Your task to perform on an android device: open app "Skype" (install if not already installed) and go to login screen Image 0: 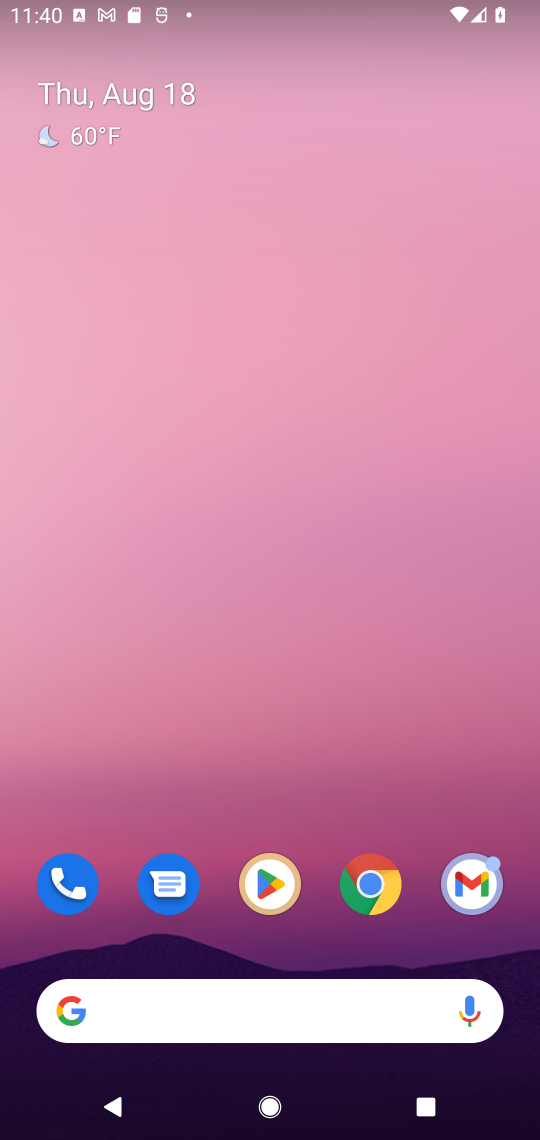
Step 0: drag from (248, 1011) to (267, 34)
Your task to perform on an android device: open app "Skype" (install if not already installed) and go to login screen Image 1: 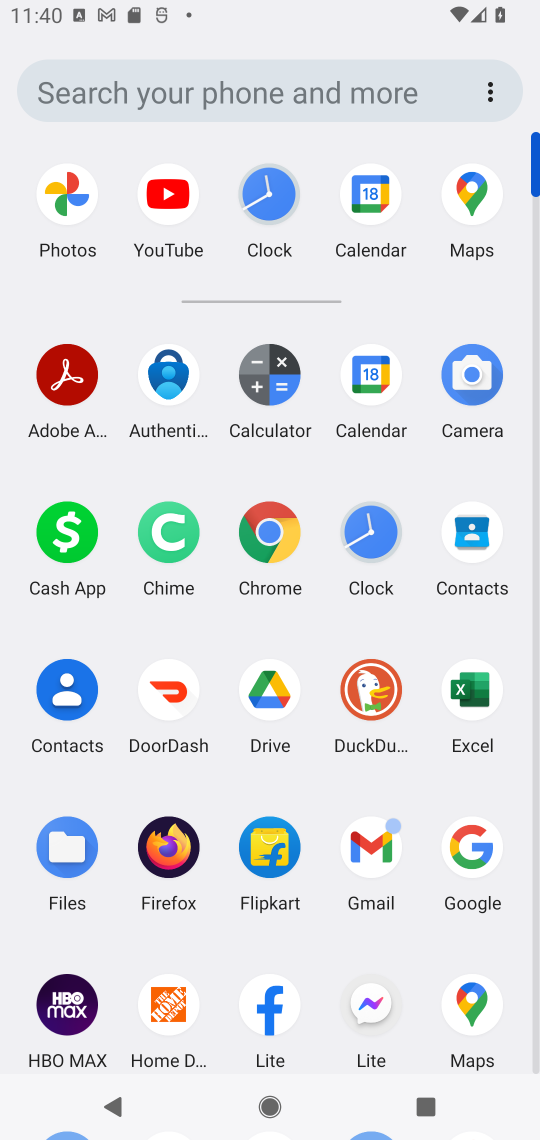
Step 1: drag from (332, 880) to (339, 362)
Your task to perform on an android device: open app "Skype" (install if not already installed) and go to login screen Image 2: 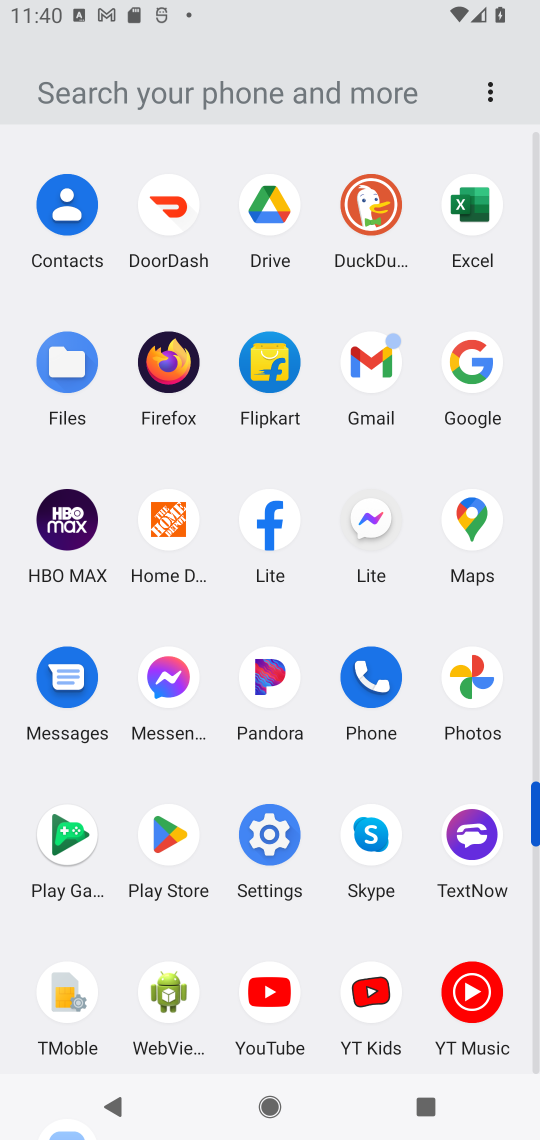
Step 2: click (170, 847)
Your task to perform on an android device: open app "Skype" (install if not already installed) and go to login screen Image 3: 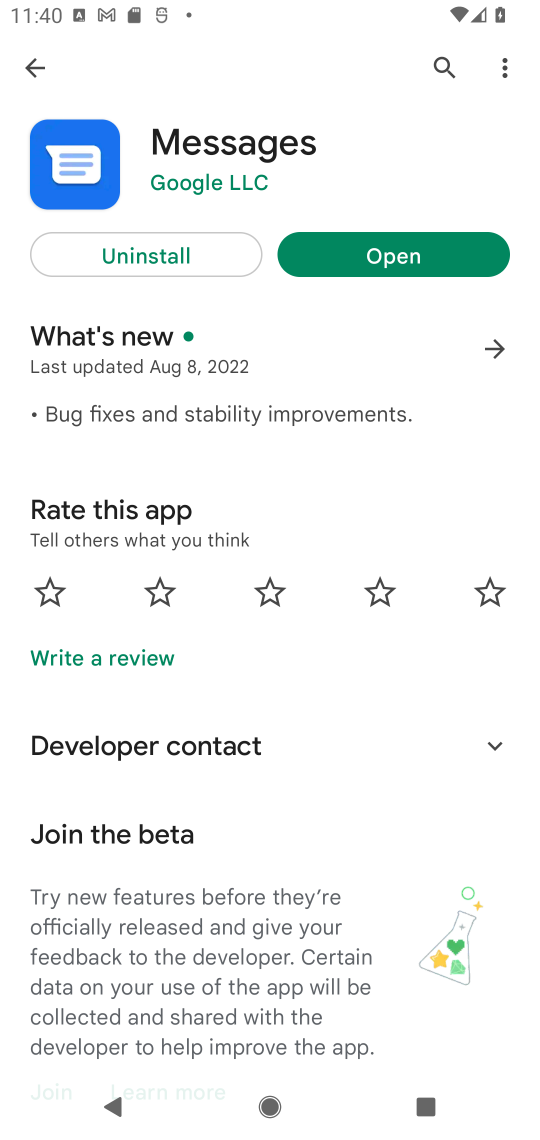
Step 3: press back button
Your task to perform on an android device: open app "Skype" (install if not already installed) and go to login screen Image 4: 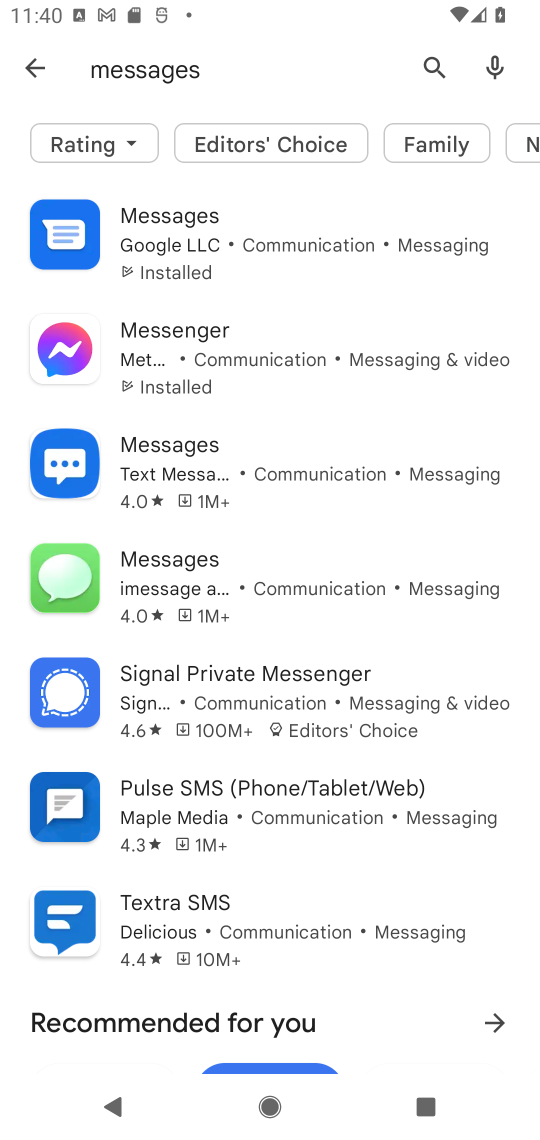
Step 4: press back button
Your task to perform on an android device: open app "Skype" (install if not already installed) and go to login screen Image 5: 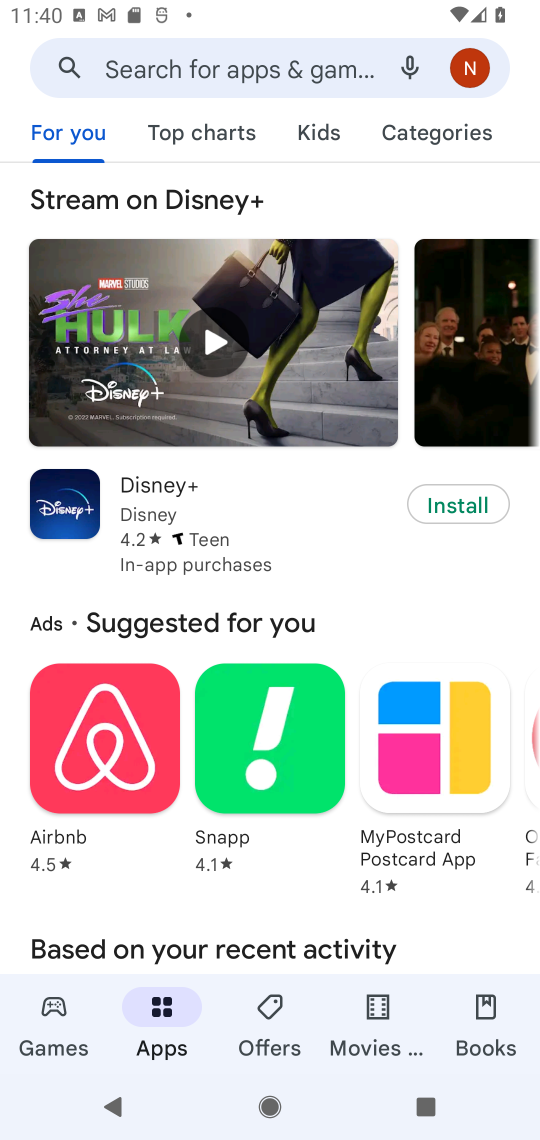
Step 5: click (282, 69)
Your task to perform on an android device: open app "Skype" (install if not already installed) and go to login screen Image 6: 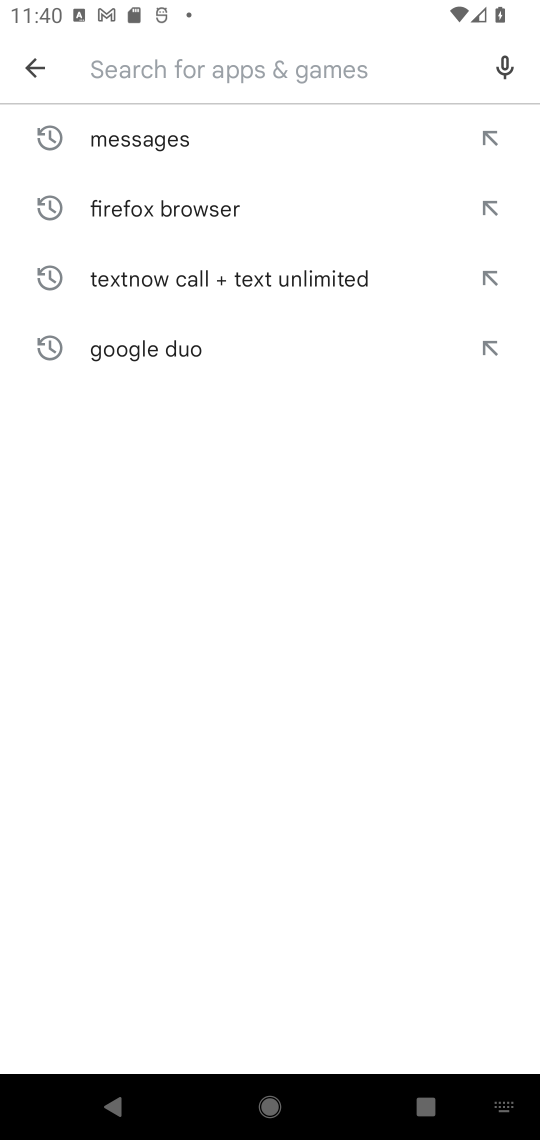
Step 6: type "Skype"
Your task to perform on an android device: open app "Skype" (install if not already installed) and go to login screen Image 7: 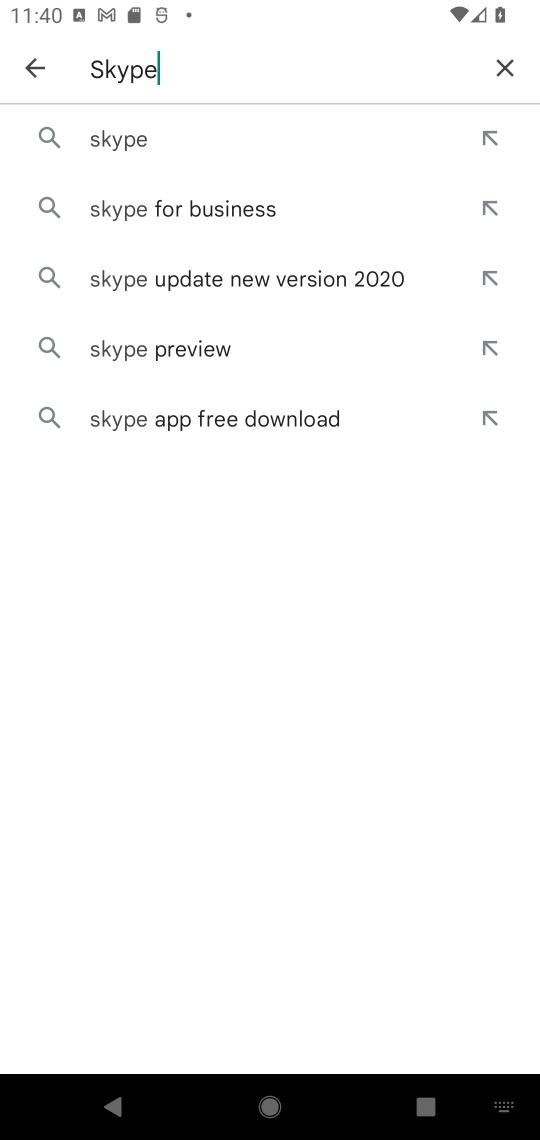
Step 7: click (140, 151)
Your task to perform on an android device: open app "Skype" (install if not already installed) and go to login screen Image 8: 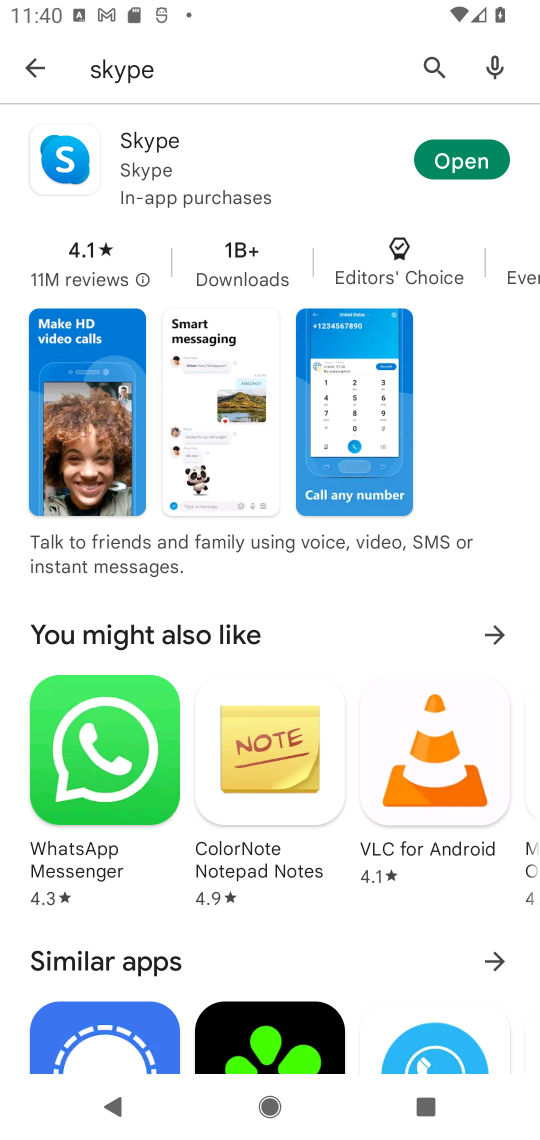
Step 8: click (452, 164)
Your task to perform on an android device: open app "Skype" (install if not already installed) and go to login screen Image 9: 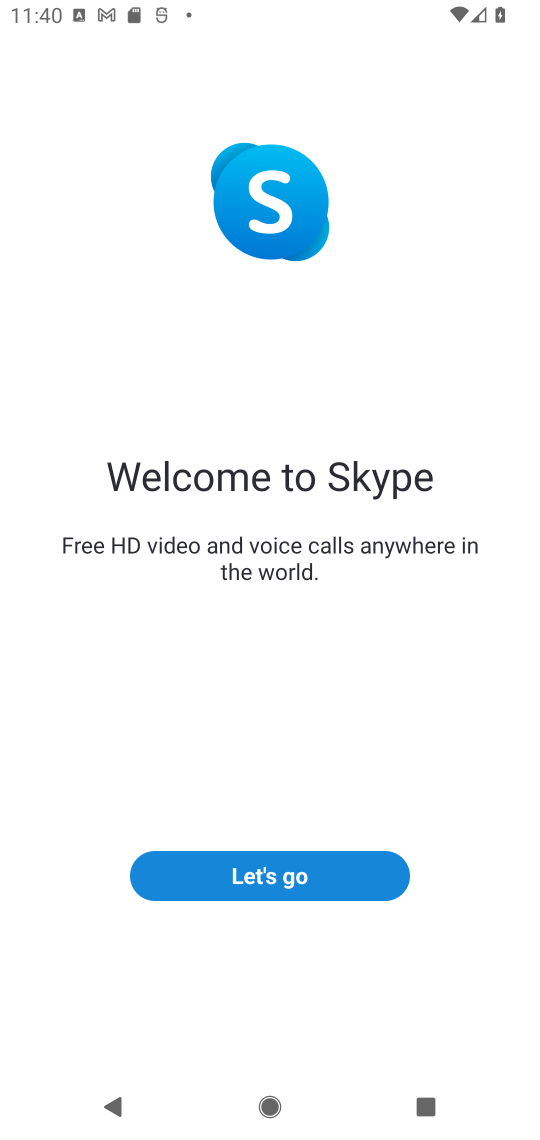
Step 9: click (263, 873)
Your task to perform on an android device: open app "Skype" (install if not already installed) and go to login screen Image 10: 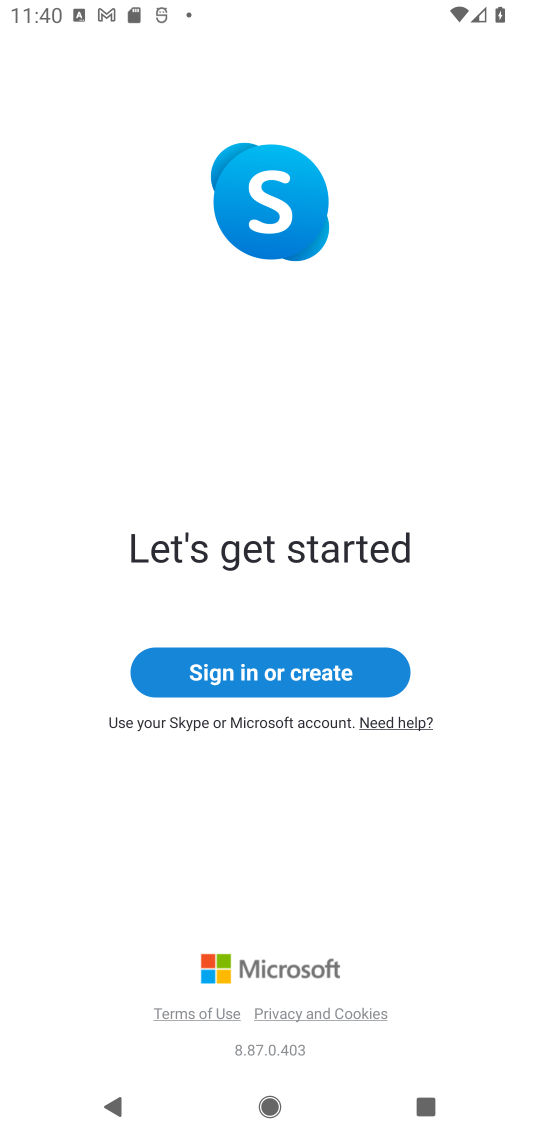
Step 10: click (275, 676)
Your task to perform on an android device: open app "Skype" (install if not already installed) and go to login screen Image 11: 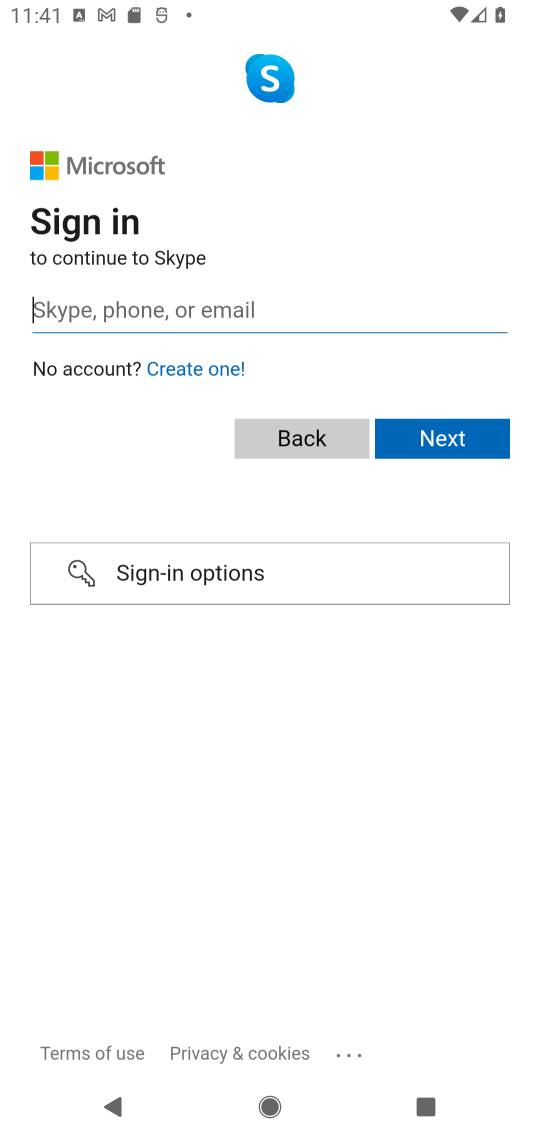
Step 11: task complete